Your task to perform on an android device: turn on javascript in the chrome app Image 0: 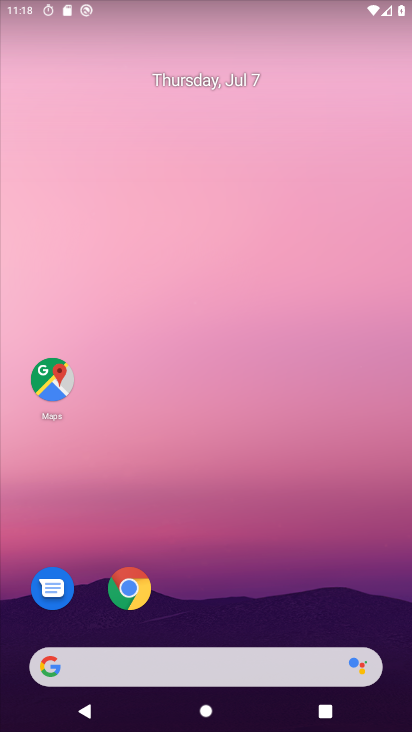
Step 0: click (135, 588)
Your task to perform on an android device: turn on javascript in the chrome app Image 1: 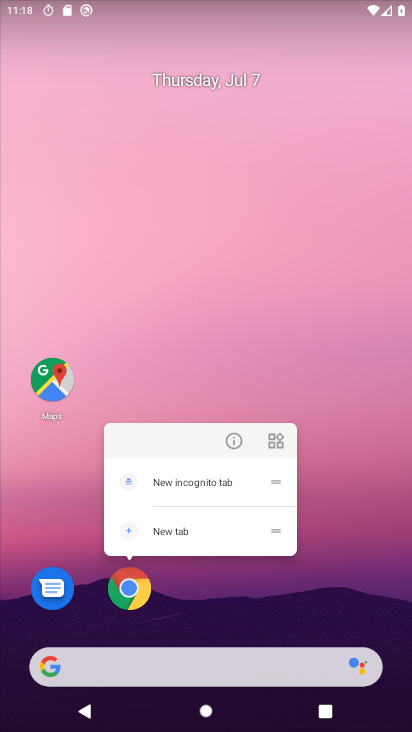
Step 1: click (134, 589)
Your task to perform on an android device: turn on javascript in the chrome app Image 2: 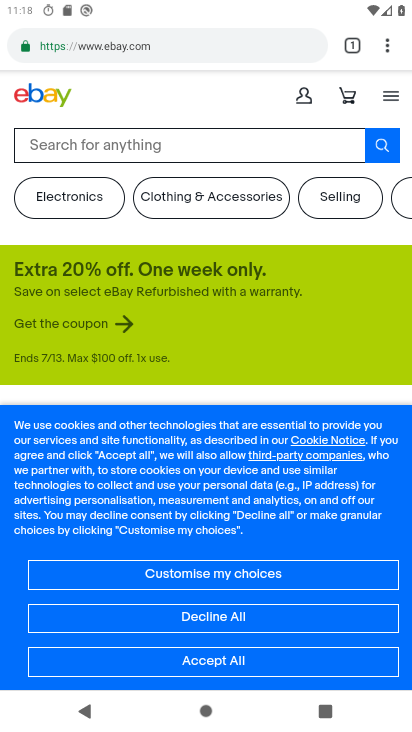
Step 2: drag from (386, 44) to (244, 557)
Your task to perform on an android device: turn on javascript in the chrome app Image 3: 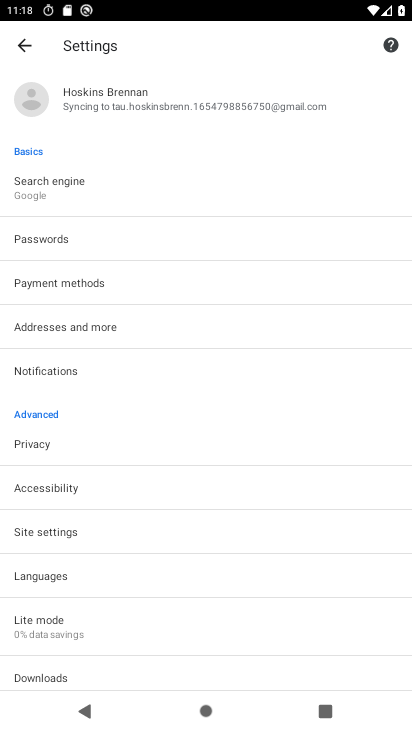
Step 3: click (58, 525)
Your task to perform on an android device: turn on javascript in the chrome app Image 4: 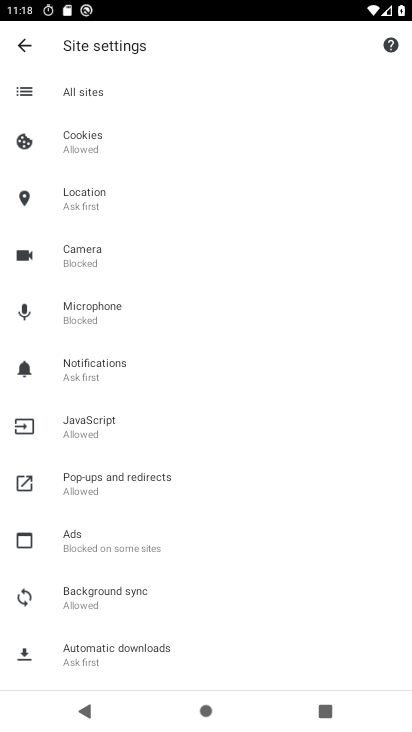
Step 4: click (97, 422)
Your task to perform on an android device: turn on javascript in the chrome app Image 5: 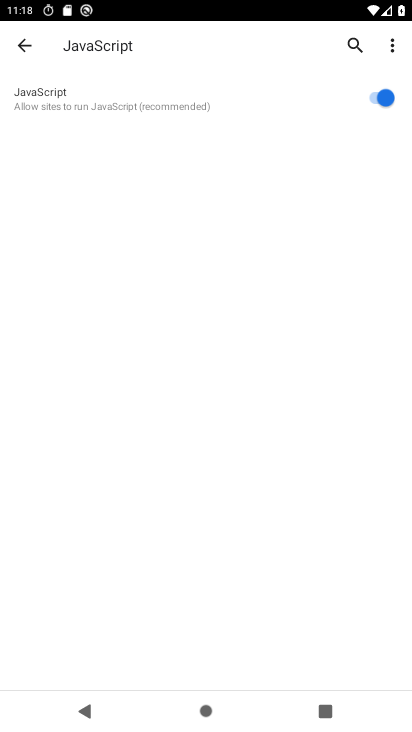
Step 5: task complete